Your task to perform on an android device: manage bookmarks in the chrome app Image 0: 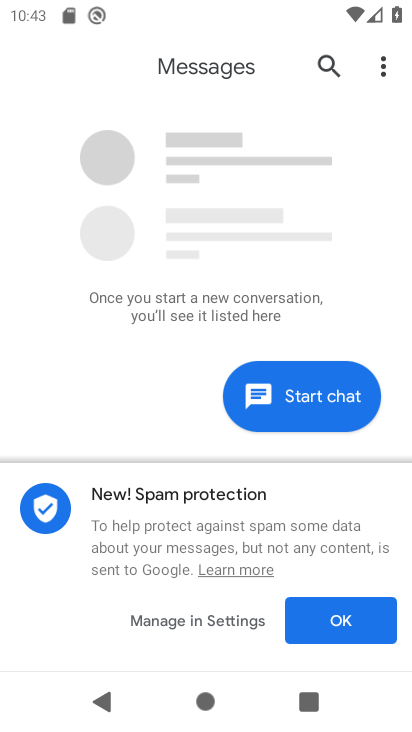
Step 0: press home button
Your task to perform on an android device: manage bookmarks in the chrome app Image 1: 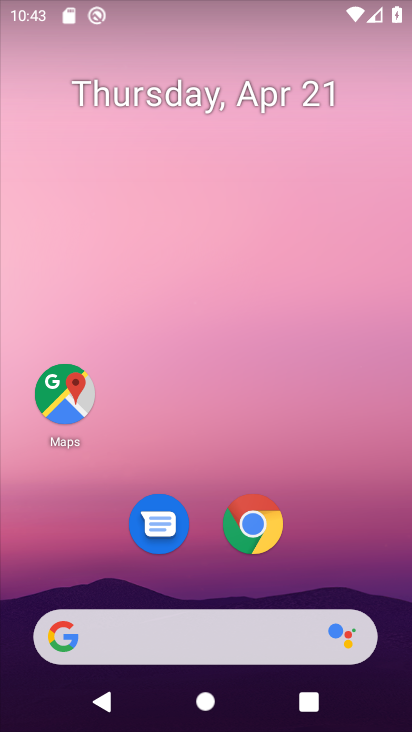
Step 1: click (249, 529)
Your task to perform on an android device: manage bookmarks in the chrome app Image 2: 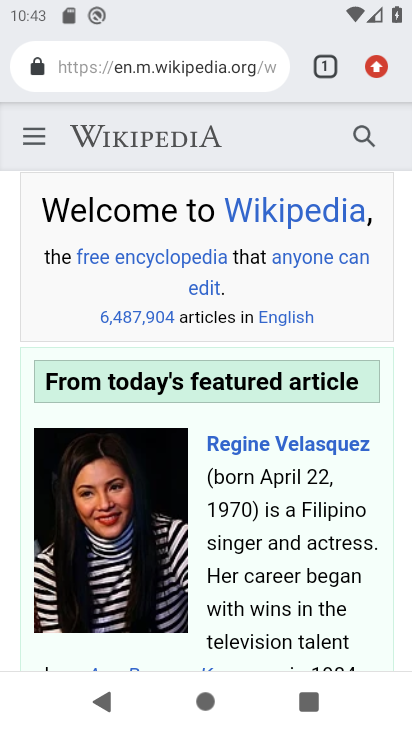
Step 2: drag from (379, 67) to (183, 312)
Your task to perform on an android device: manage bookmarks in the chrome app Image 3: 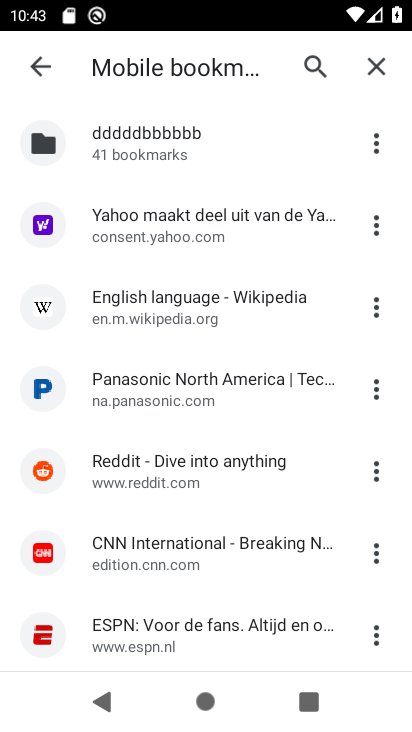
Step 3: click (374, 301)
Your task to perform on an android device: manage bookmarks in the chrome app Image 4: 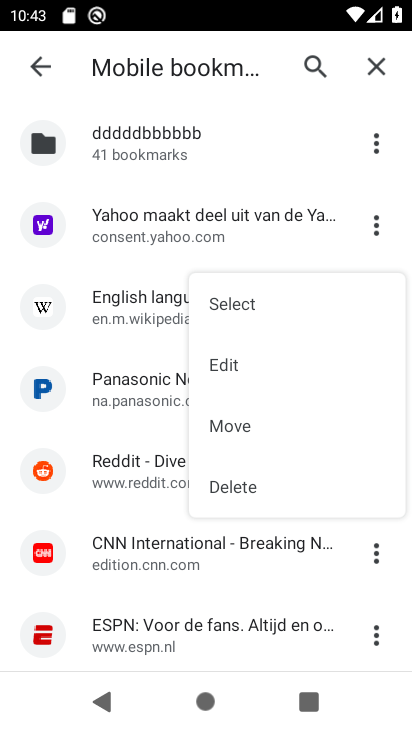
Step 4: click (305, 362)
Your task to perform on an android device: manage bookmarks in the chrome app Image 5: 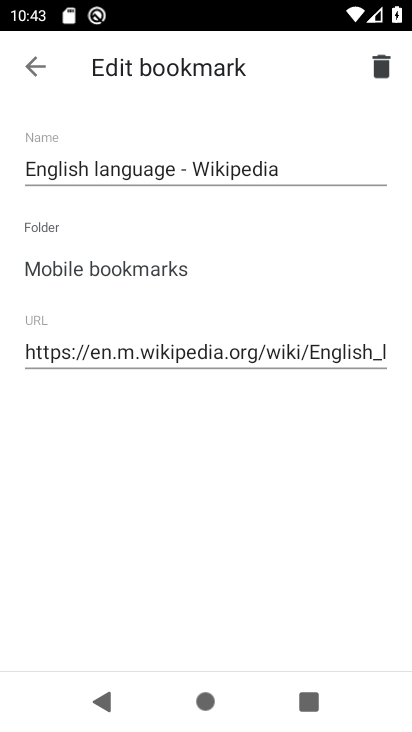
Step 5: click (37, 62)
Your task to perform on an android device: manage bookmarks in the chrome app Image 6: 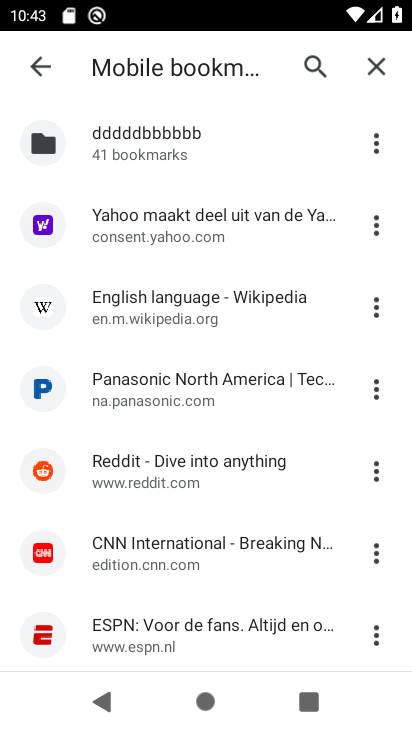
Step 6: task complete